Your task to perform on an android device: search for starred emails in the gmail app Image 0: 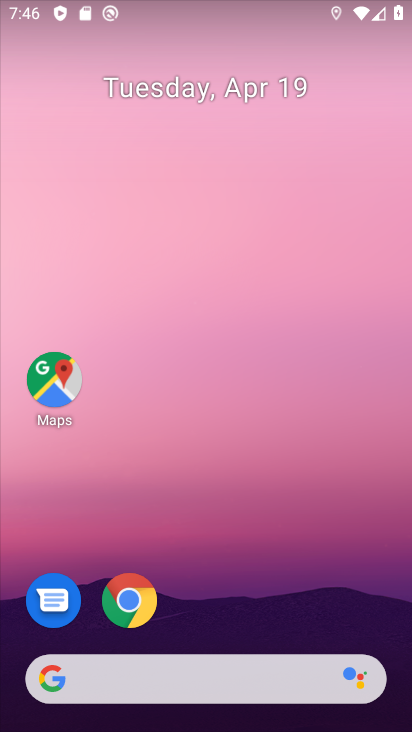
Step 0: drag from (200, 642) to (234, 212)
Your task to perform on an android device: search for starred emails in the gmail app Image 1: 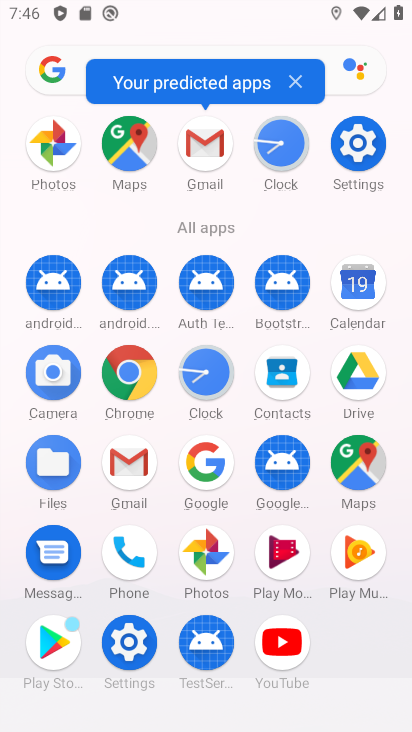
Step 1: click (142, 465)
Your task to perform on an android device: search for starred emails in the gmail app Image 2: 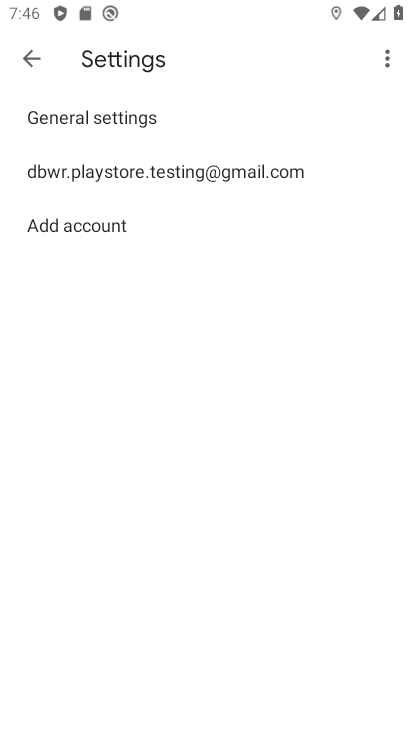
Step 2: click (217, 178)
Your task to perform on an android device: search for starred emails in the gmail app Image 3: 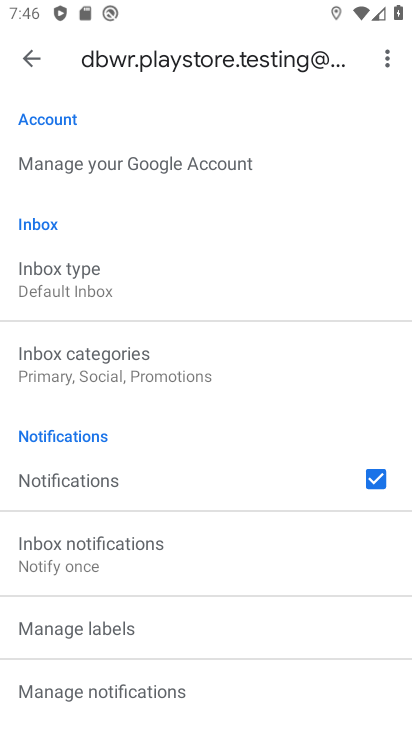
Step 3: click (37, 61)
Your task to perform on an android device: search for starred emails in the gmail app Image 4: 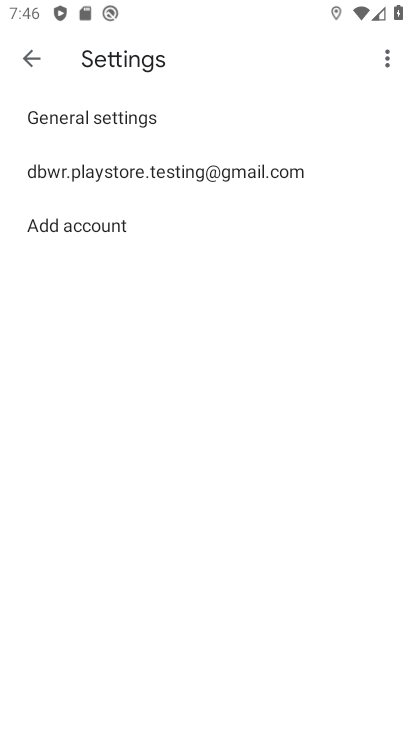
Step 4: click (37, 61)
Your task to perform on an android device: search for starred emails in the gmail app Image 5: 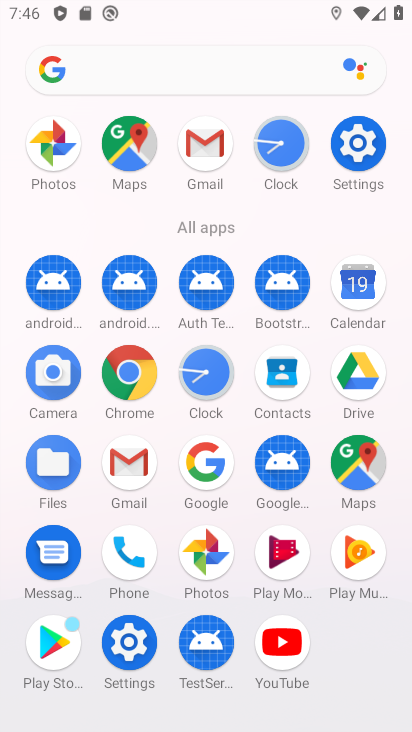
Step 5: click (200, 148)
Your task to perform on an android device: search for starred emails in the gmail app Image 6: 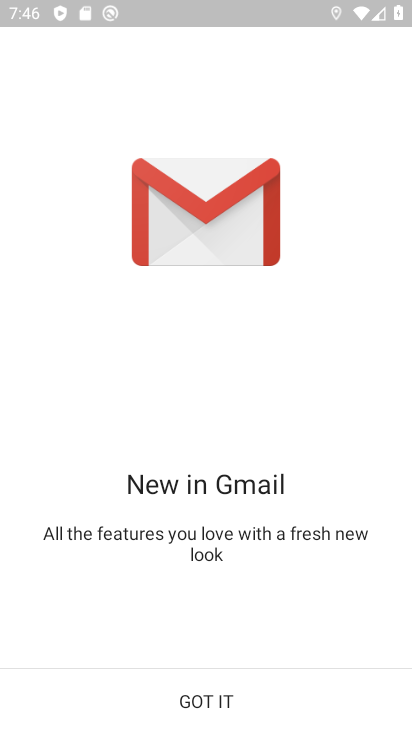
Step 6: click (191, 706)
Your task to perform on an android device: search for starred emails in the gmail app Image 7: 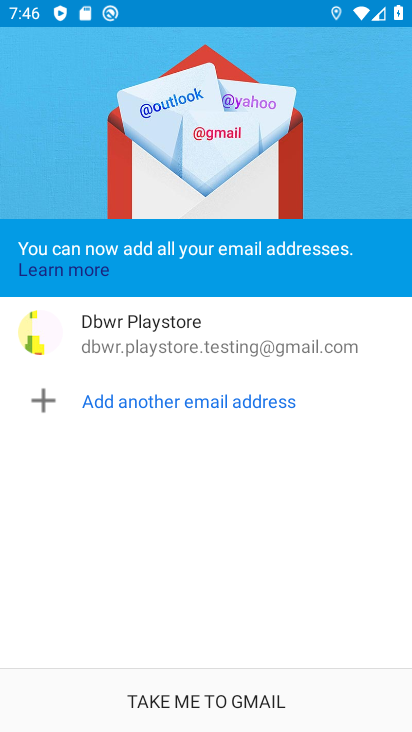
Step 7: click (189, 695)
Your task to perform on an android device: search for starred emails in the gmail app Image 8: 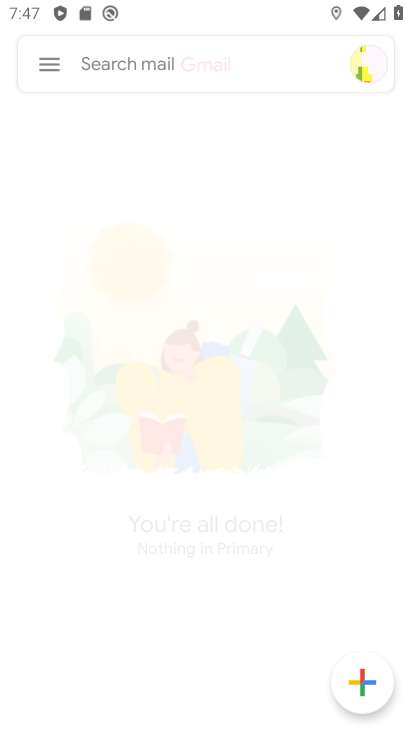
Step 8: click (40, 69)
Your task to perform on an android device: search for starred emails in the gmail app Image 9: 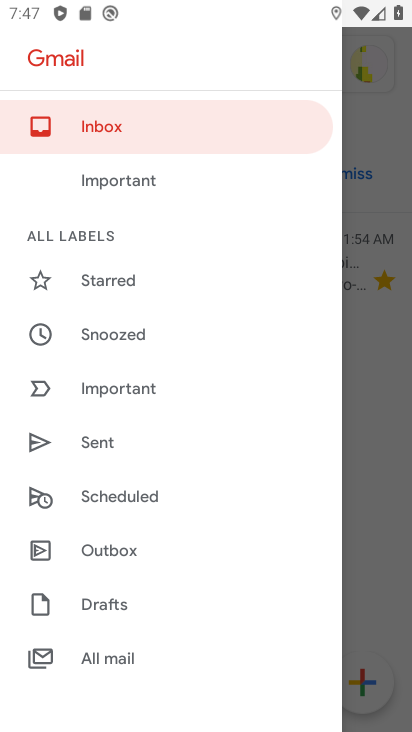
Step 9: drag from (140, 573) to (147, 317)
Your task to perform on an android device: search for starred emails in the gmail app Image 10: 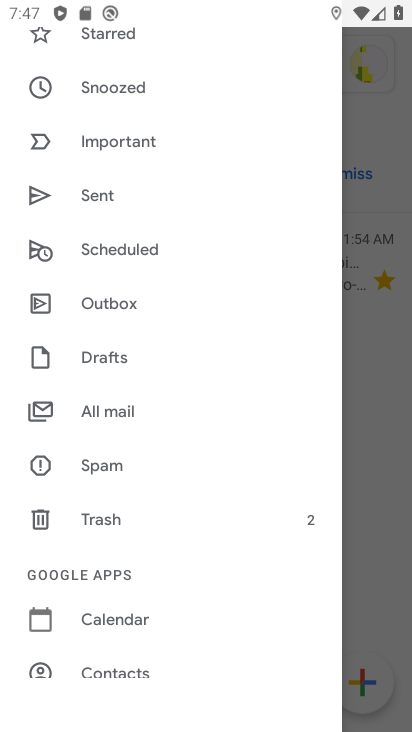
Step 10: click (125, 36)
Your task to perform on an android device: search for starred emails in the gmail app Image 11: 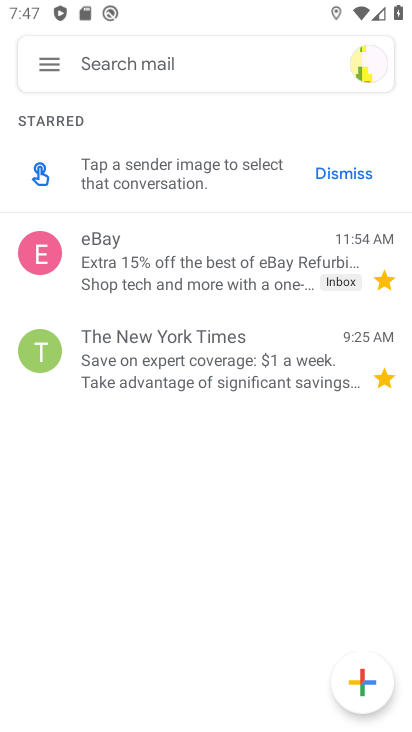
Step 11: task complete